Your task to perform on an android device: Open location settings Image 0: 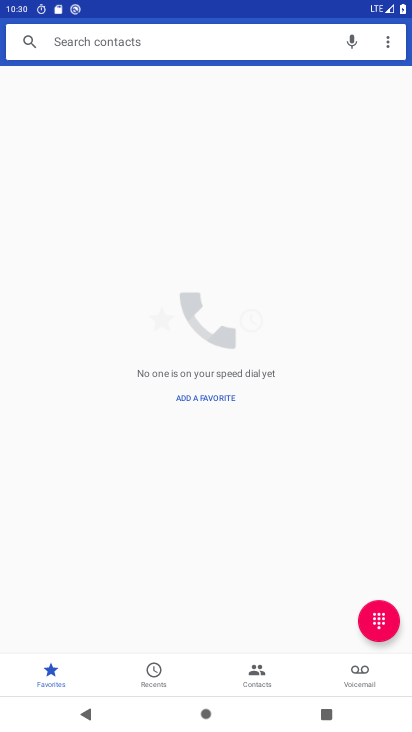
Step 0: press home button
Your task to perform on an android device: Open location settings Image 1: 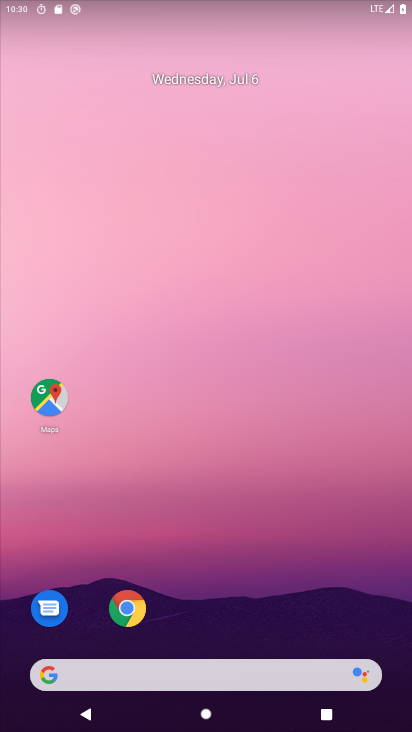
Step 1: drag from (241, 618) to (294, 7)
Your task to perform on an android device: Open location settings Image 2: 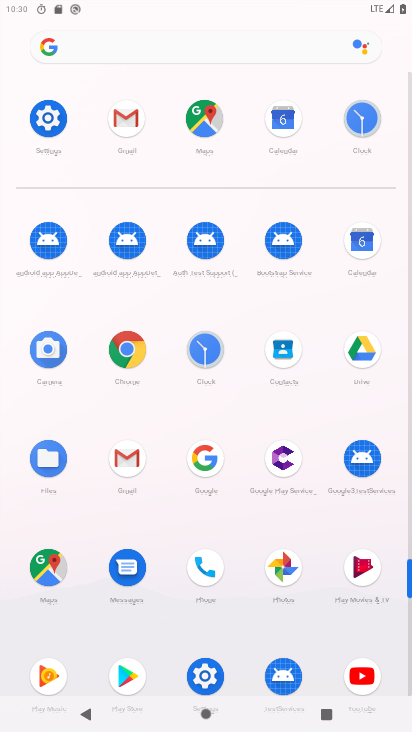
Step 2: click (202, 671)
Your task to perform on an android device: Open location settings Image 3: 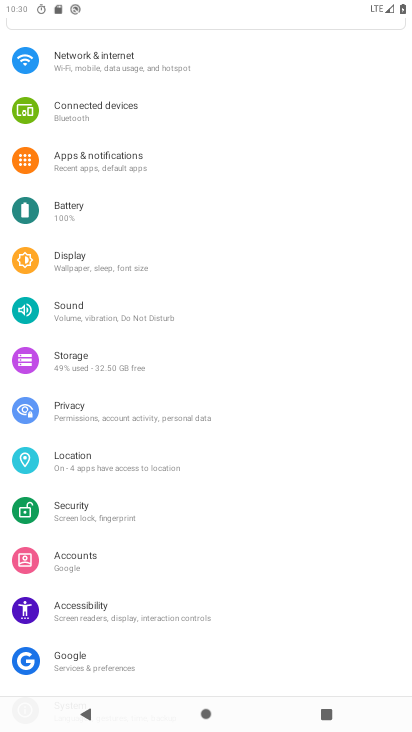
Step 3: click (112, 469)
Your task to perform on an android device: Open location settings Image 4: 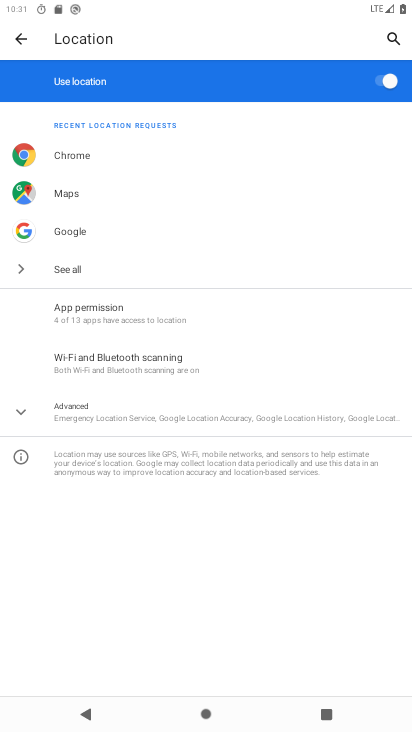
Step 4: click (119, 415)
Your task to perform on an android device: Open location settings Image 5: 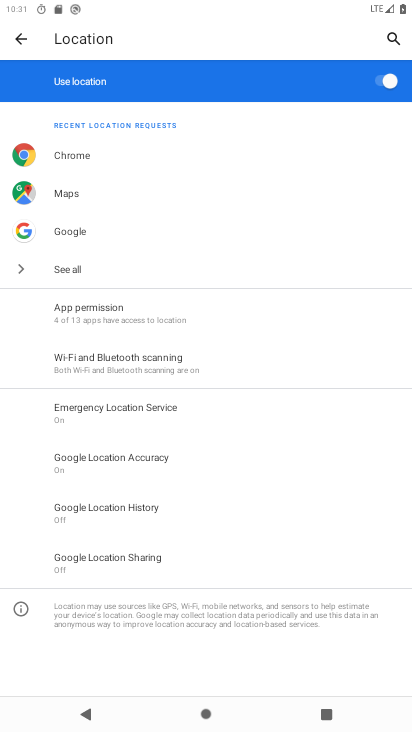
Step 5: task complete